Your task to perform on an android device: Open location settings Image 0: 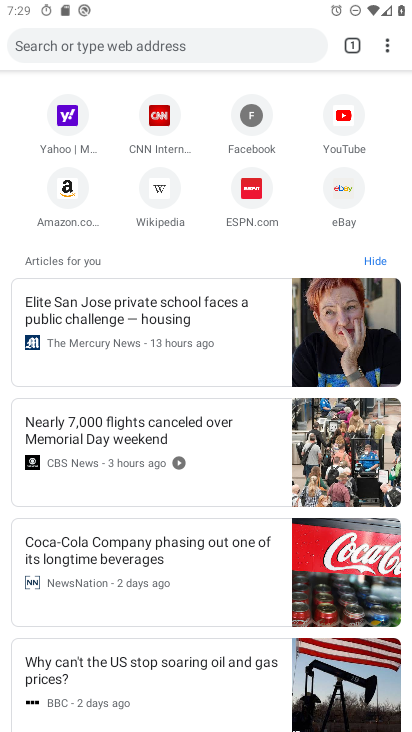
Step 0: press home button
Your task to perform on an android device: Open location settings Image 1: 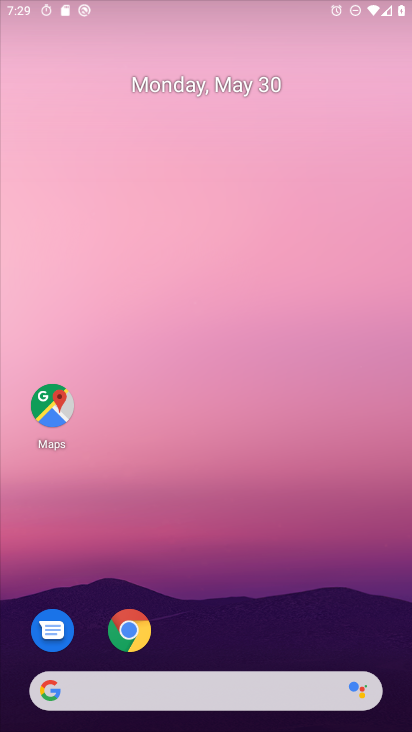
Step 1: drag from (359, 650) to (310, 52)
Your task to perform on an android device: Open location settings Image 2: 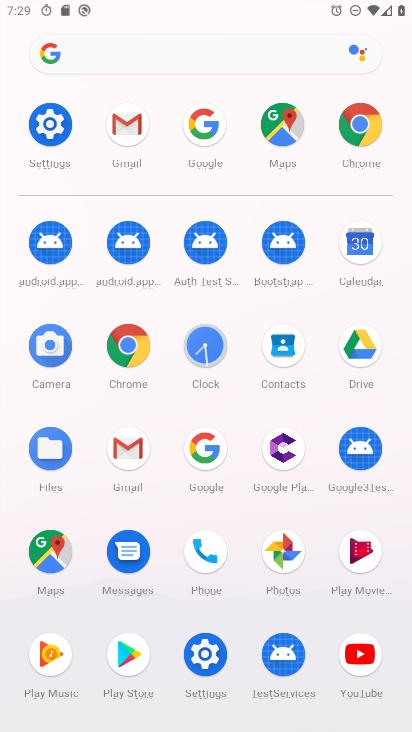
Step 2: click (56, 133)
Your task to perform on an android device: Open location settings Image 3: 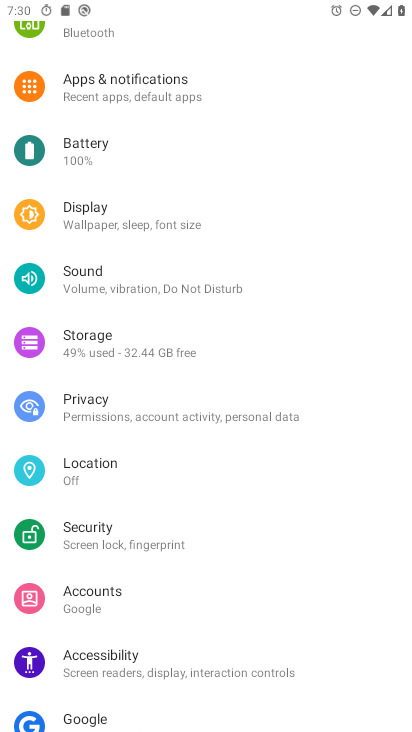
Step 3: click (92, 458)
Your task to perform on an android device: Open location settings Image 4: 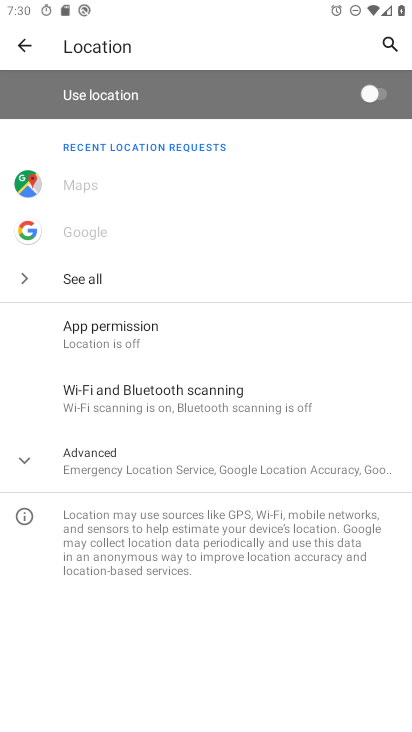
Step 4: task complete